Your task to perform on an android device: toggle location history Image 0: 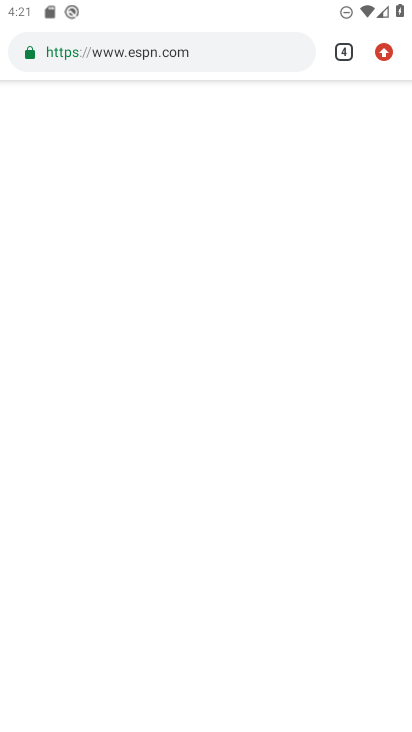
Step 0: press home button
Your task to perform on an android device: toggle location history Image 1: 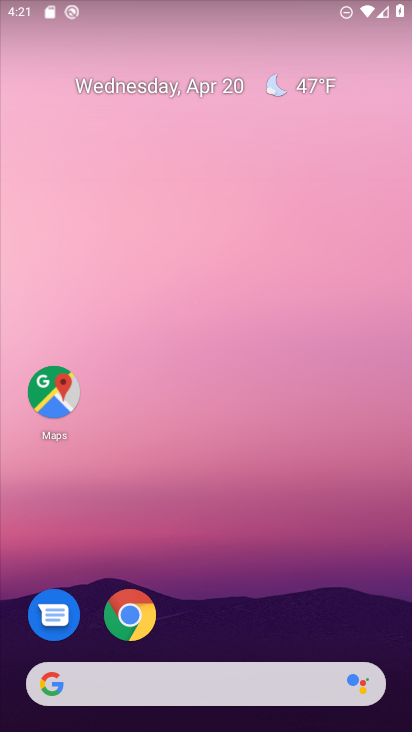
Step 1: drag from (279, 640) to (157, 31)
Your task to perform on an android device: toggle location history Image 2: 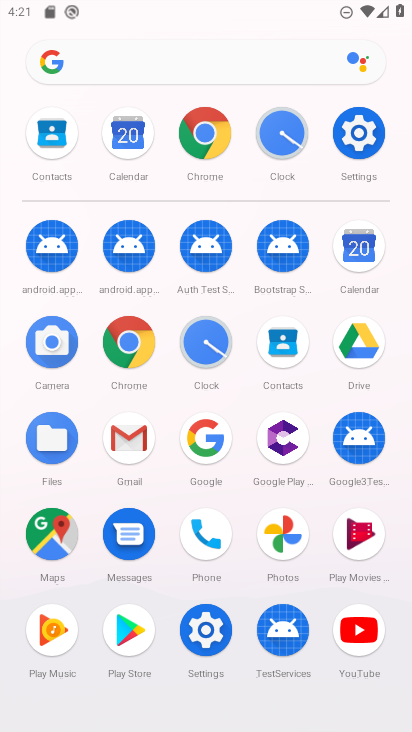
Step 2: click (218, 633)
Your task to perform on an android device: toggle location history Image 3: 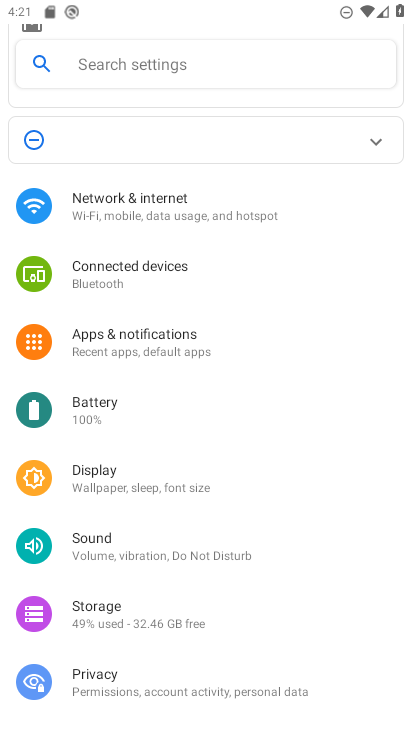
Step 3: drag from (163, 647) to (295, 17)
Your task to perform on an android device: toggle location history Image 4: 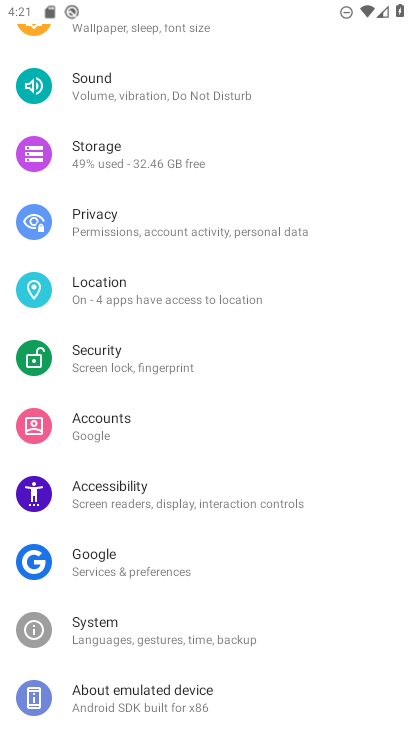
Step 4: click (97, 299)
Your task to perform on an android device: toggle location history Image 5: 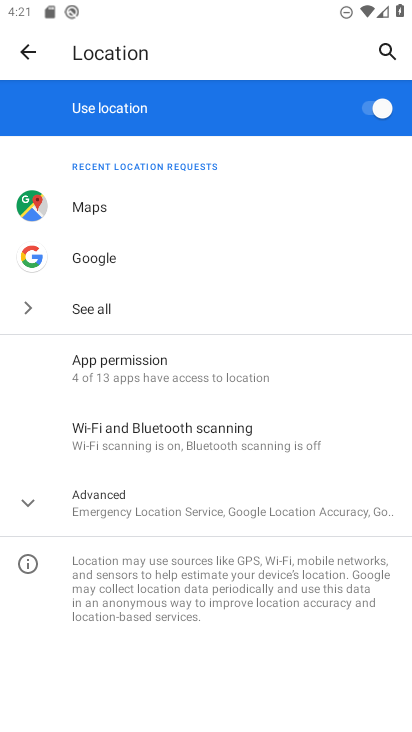
Step 5: click (137, 498)
Your task to perform on an android device: toggle location history Image 6: 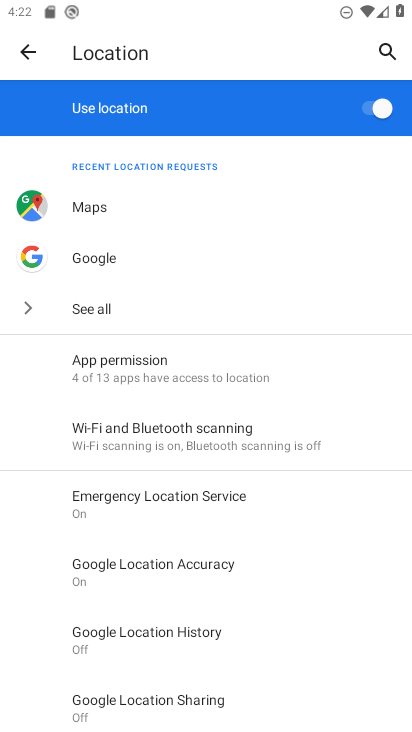
Step 6: click (235, 636)
Your task to perform on an android device: toggle location history Image 7: 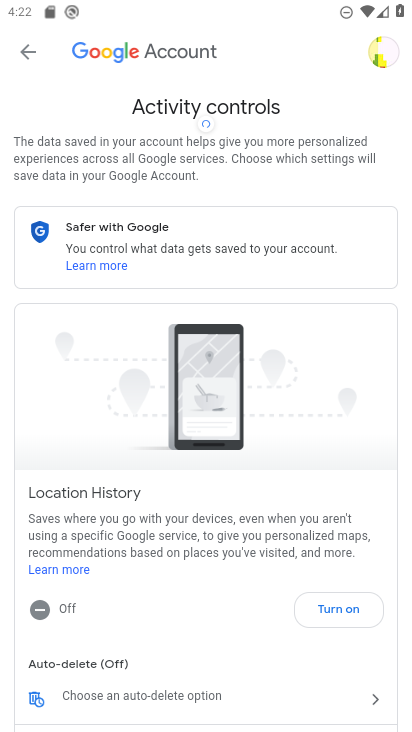
Step 7: drag from (359, 554) to (349, 74)
Your task to perform on an android device: toggle location history Image 8: 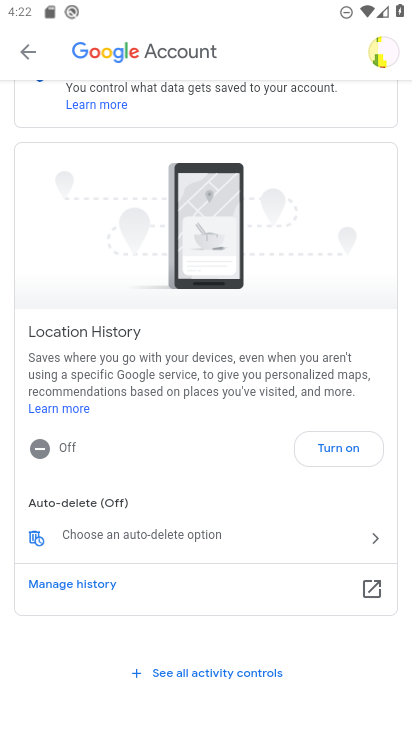
Step 8: click (315, 449)
Your task to perform on an android device: toggle location history Image 9: 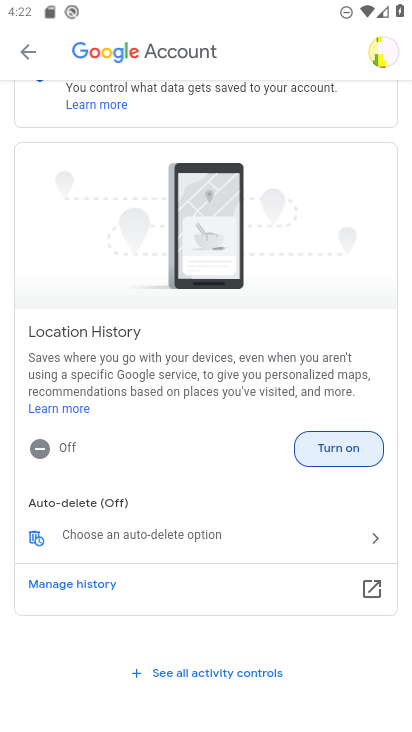
Step 9: click (347, 449)
Your task to perform on an android device: toggle location history Image 10: 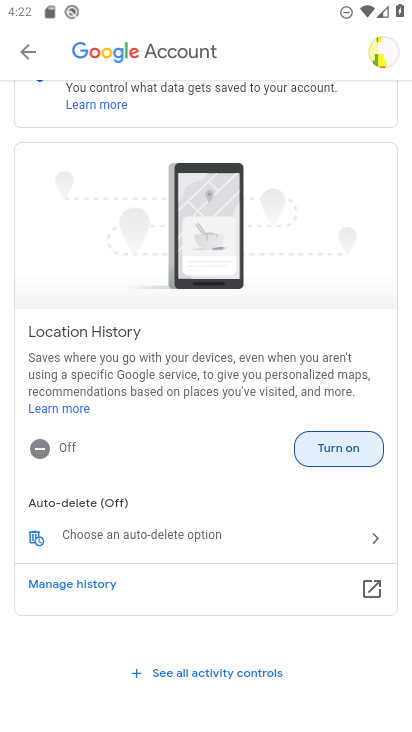
Step 10: click (341, 454)
Your task to perform on an android device: toggle location history Image 11: 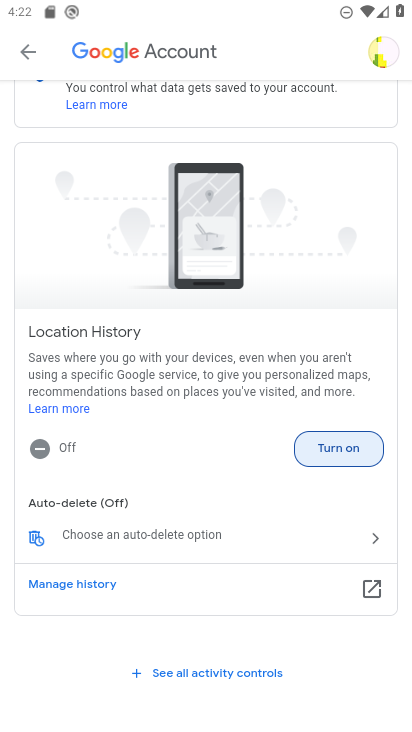
Step 11: click (363, 444)
Your task to perform on an android device: toggle location history Image 12: 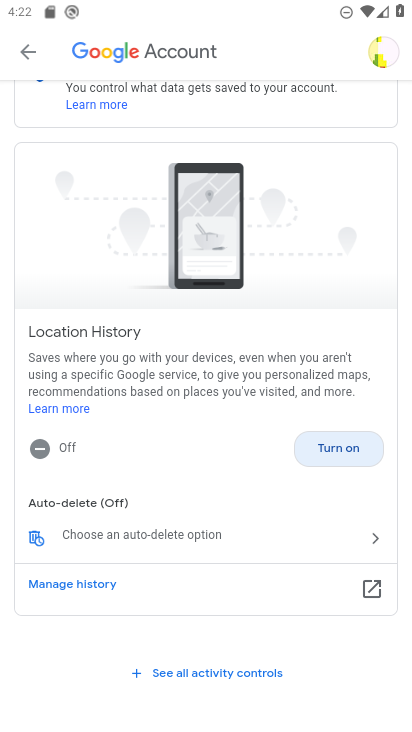
Step 12: click (363, 444)
Your task to perform on an android device: toggle location history Image 13: 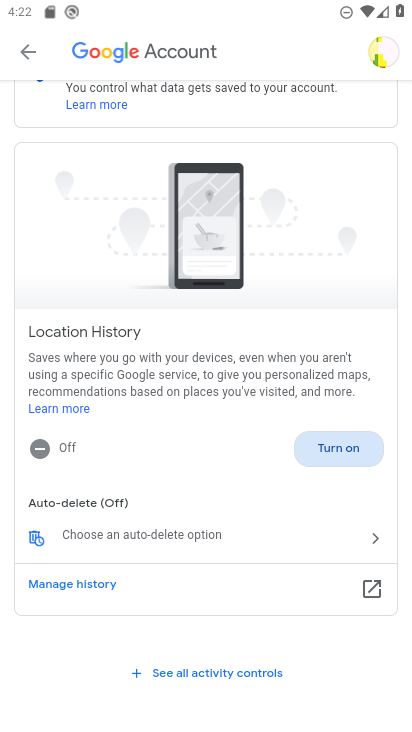
Step 13: click (363, 444)
Your task to perform on an android device: toggle location history Image 14: 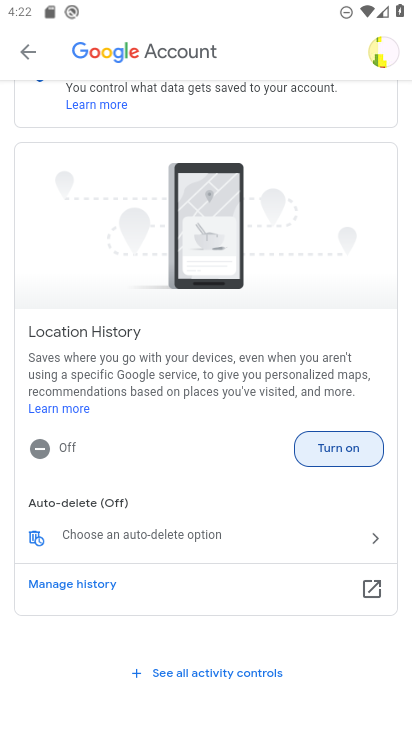
Step 14: task complete